Your task to perform on an android device: See recent photos Image 0: 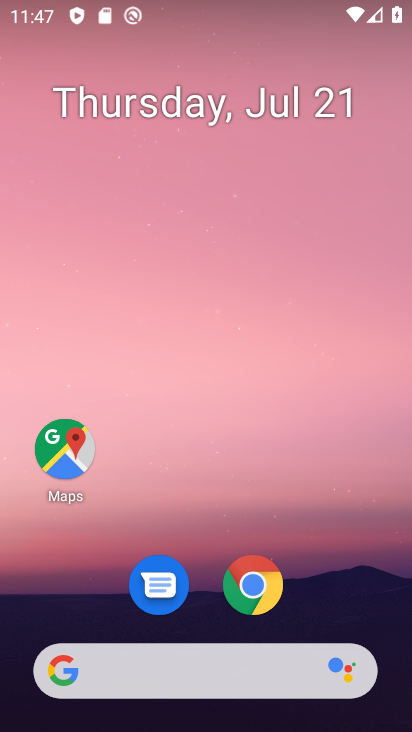
Step 0: drag from (232, 534) to (355, 134)
Your task to perform on an android device: See recent photos Image 1: 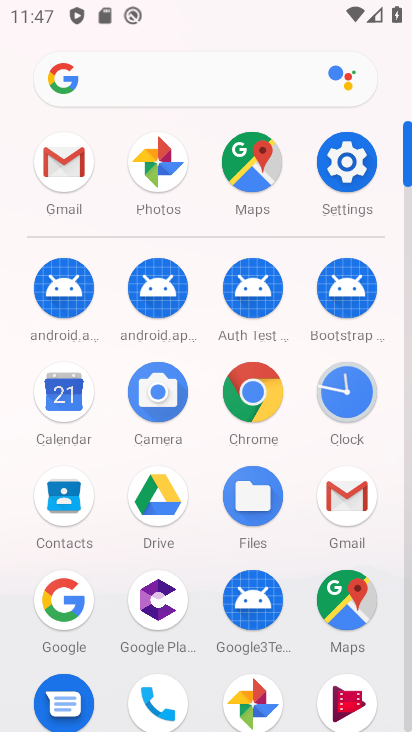
Step 1: click (161, 160)
Your task to perform on an android device: See recent photos Image 2: 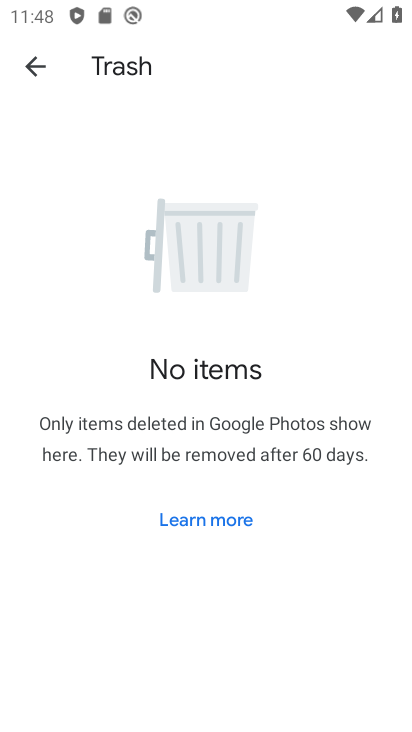
Step 2: click (41, 62)
Your task to perform on an android device: See recent photos Image 3: 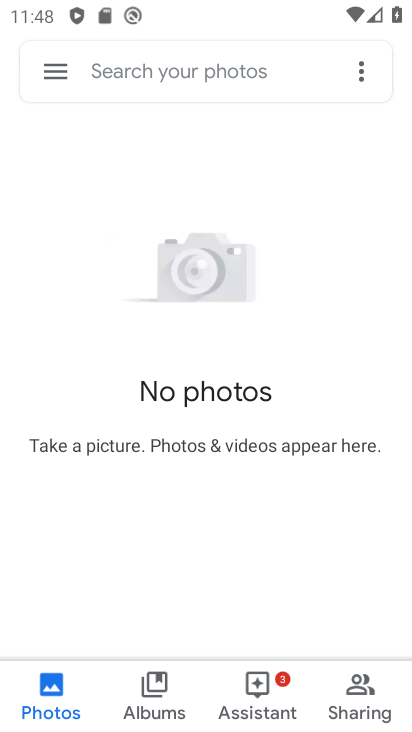
Step 3: click (164, 700)
Your task to perform on an android device: See recent photos Image 4: 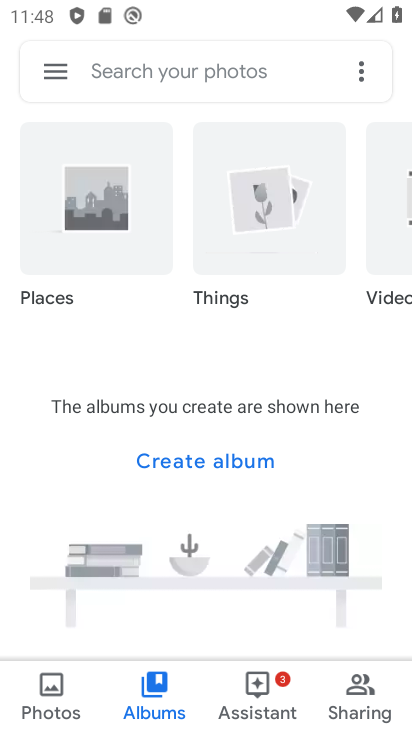
Step 4: task complete